Your task to perform on an android device: check storage Image 0: 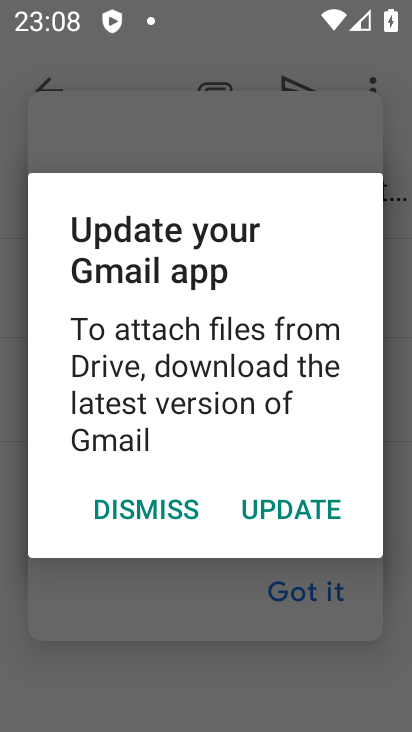
Step 0: press home button
Your task to perform on an android device: check storage Image 1: 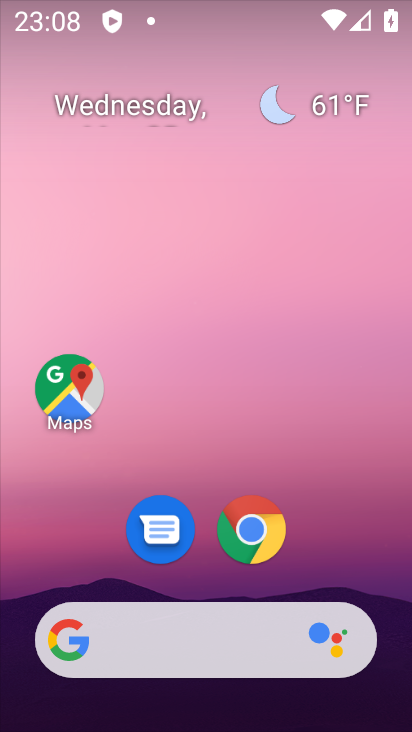
Step 1: drag from (385, 564) to (388, 181)
Your task to perform on an android device: check storage Image 2: 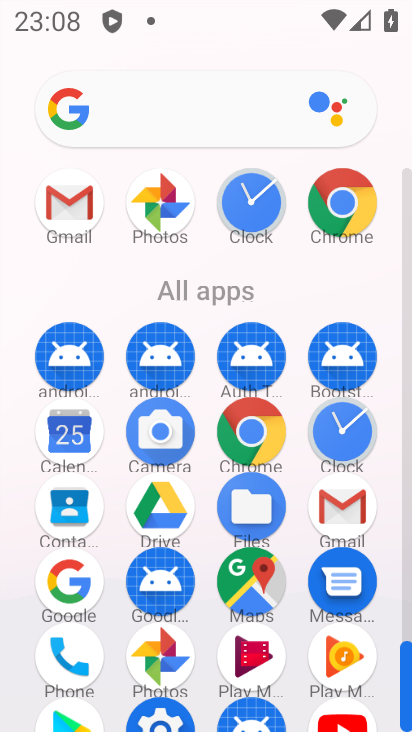
Step 2: drag from (396, 532) to (380, 293)
Your task to perform on an android device: check storage Image 3: 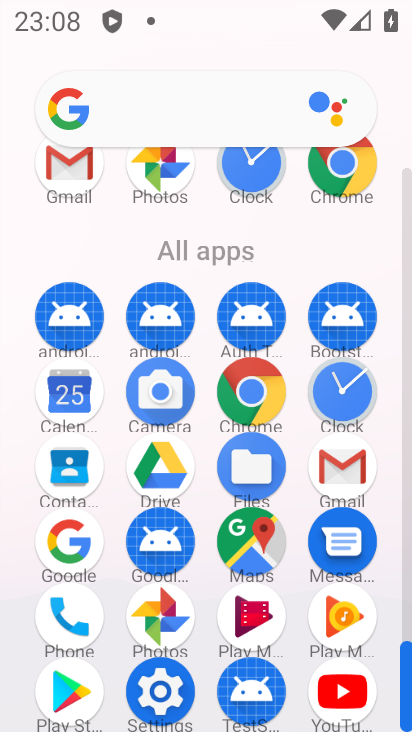
Step 3: click (166, 687)
Your task to perform on an android device: check storage Image 4: 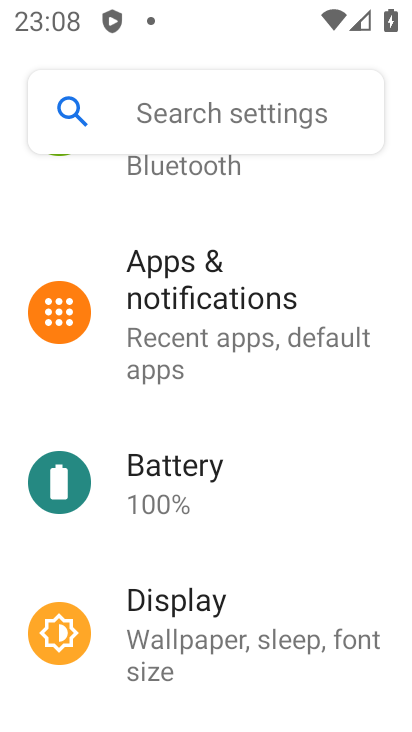
Step 4: drag from (324, 257) to (335, 397)
Your task to perform on an android device: check storage Image 5: 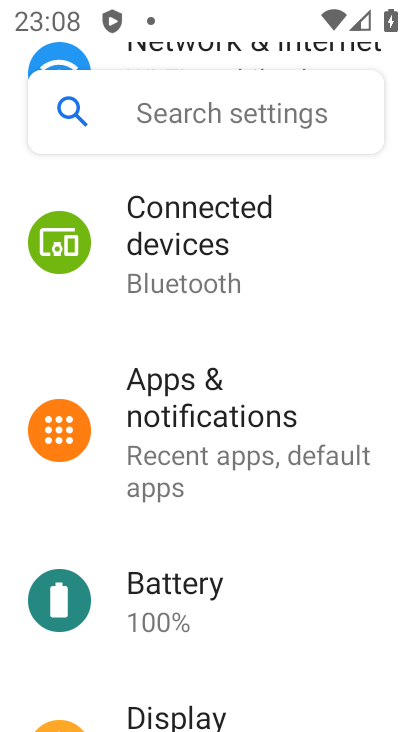
Step 5: drag from (367, 228) to (356, 397)
Your task to perform on an android device: check storage Image 6: 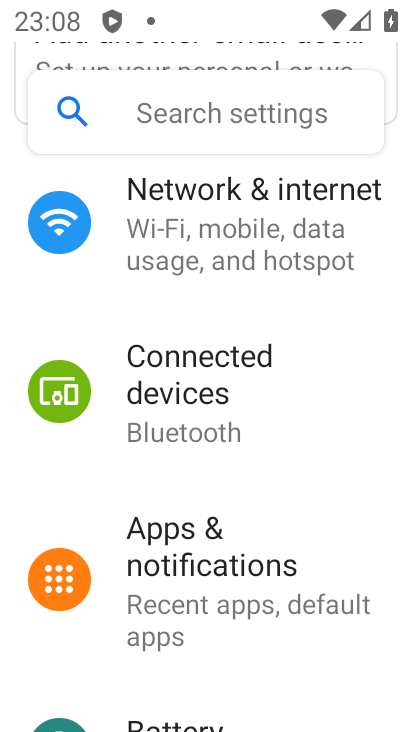
Step 6: drag from (386, 230) to (393, 367)
Your task to perform on an android device: check storage Image 7: 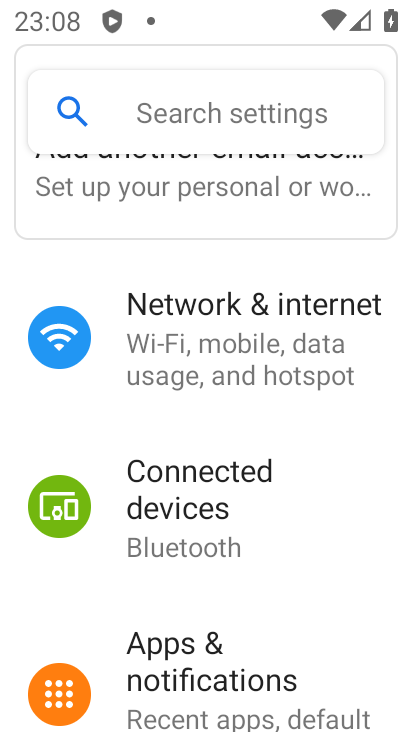
Step 7: drag from (380, 180) to (358, 480)
Your task to perform on an android device: check storage Image 8: 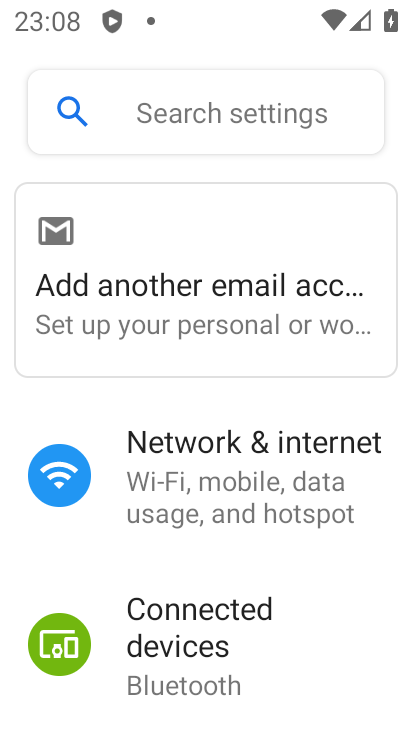
Step 8: drag from (356, 566) to (344, 403)
Your task to perform on an android device: check storage Image 9: 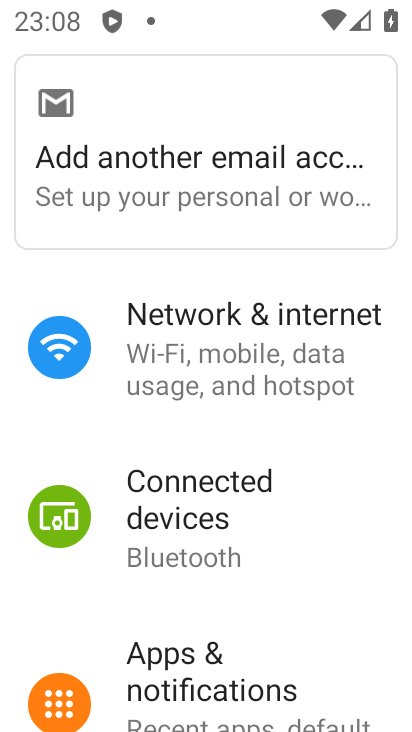
Step 9: drag from (339, 558) to (330, 415)
Your task to perform on an android device: check storage Image 10: 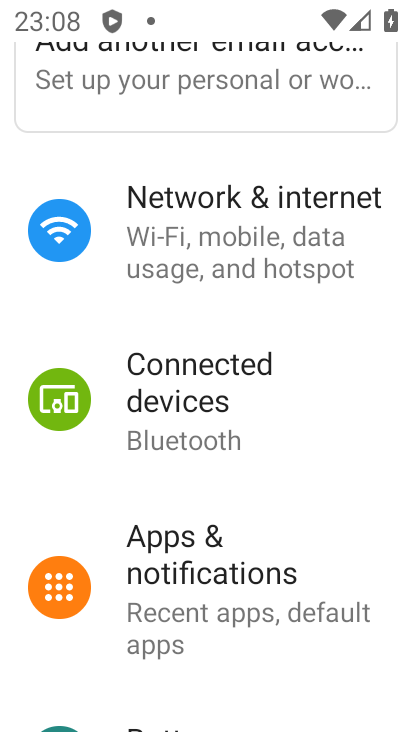
Step 10: drag from (329, 525) to (335, 297)
Your task to perform on an android device: check storage Image 11: 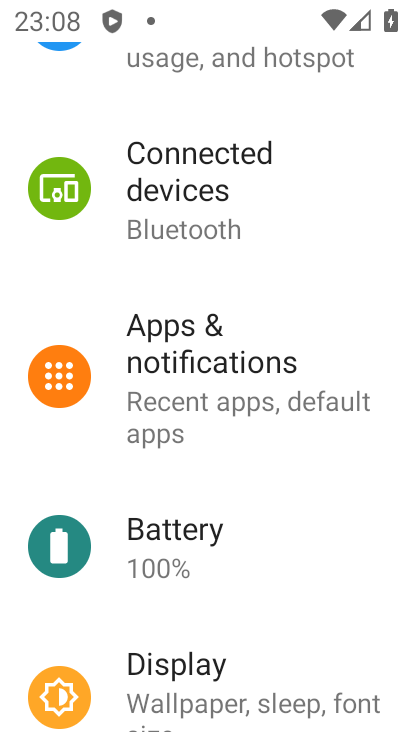
Step 11: drag from (320, 499) to (328, 322)
Your task to perform on an android device: check storage Image 12: 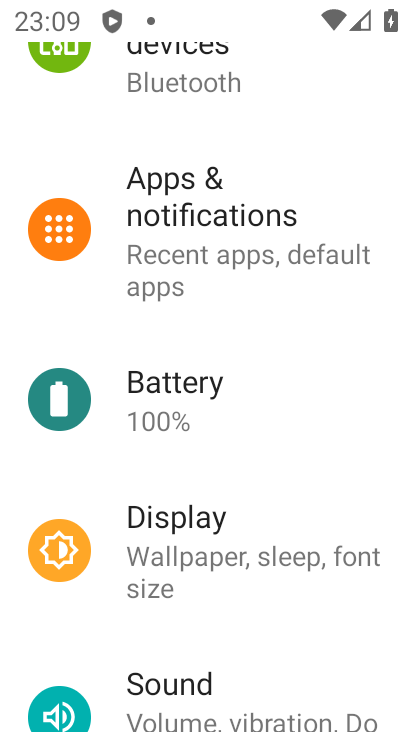
Step 12: drag from (293, 609) to (335, 404)
Your task to perform on an android device: check storage Image 13: 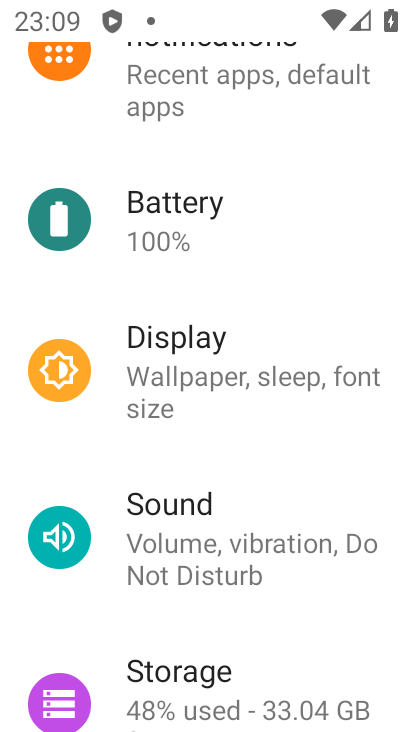
Step 13: drag from (312, 609) to (318, 443)
Your task to perform on an android device: check storage Image 14: 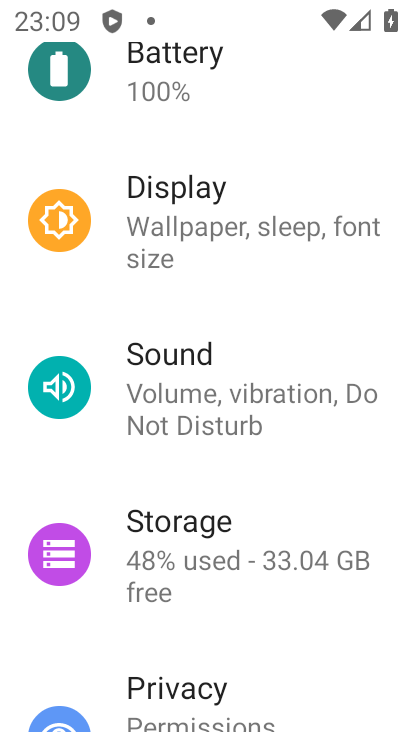
Step 14: drag from (325, 638) to (348, 467)
Your task to perform on an android device: check storage Image 15: 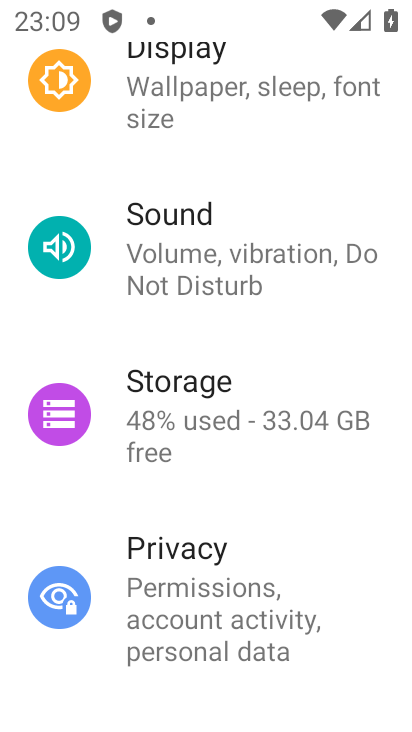
Step 15: click (315, 422)
Your task to perform on an android device: check storage Image 16: 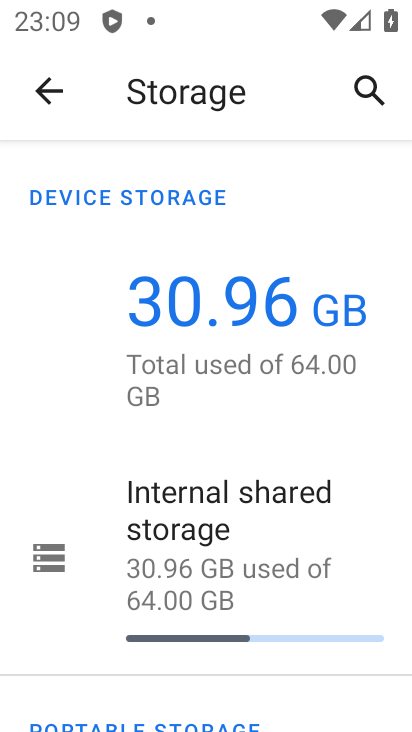
Step 16: task complete